Your task to perform on an android device: Go to CNN.com Image 0: 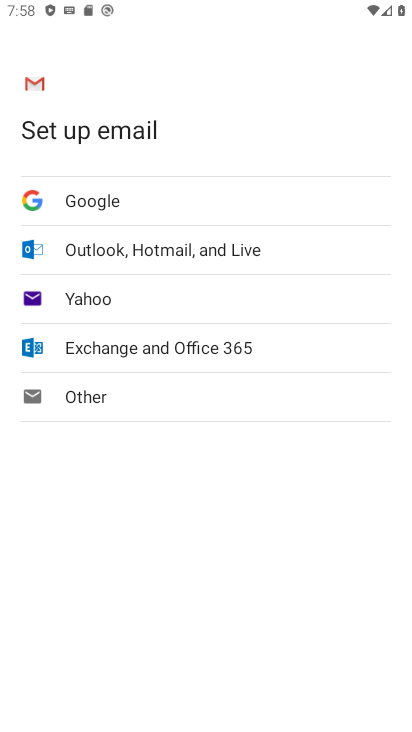
Step 0: press back button
Your task to perform on an android device: Go to CNN.com Image 1: 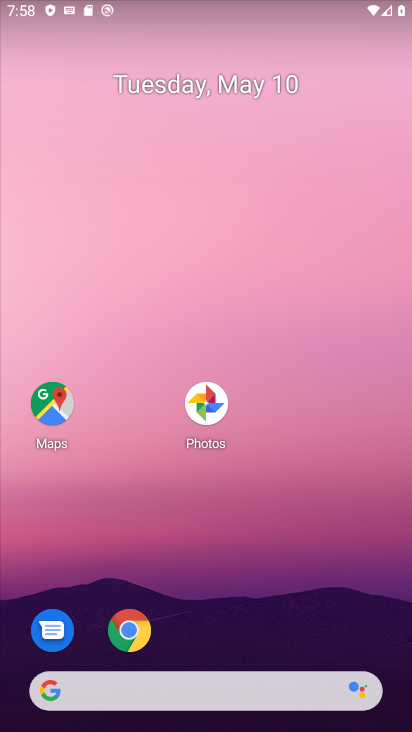
Step 1: click (132, 630)
Your task to perform on an android device: Go to CNN.com Image 2: 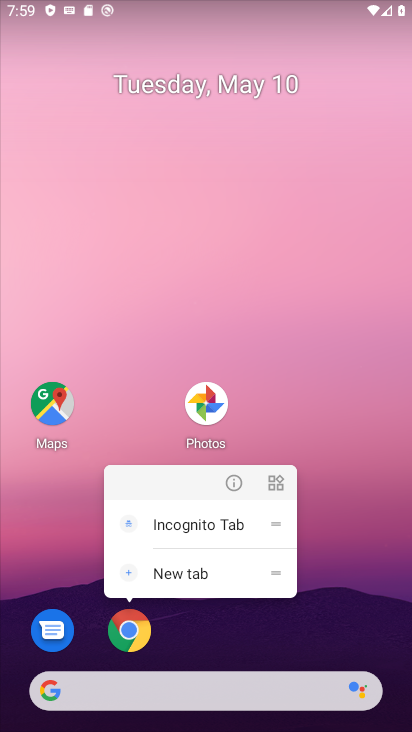
Step 2: click (128, 644)
Your task to perform on an android device: Go to CNN.com Image 3: 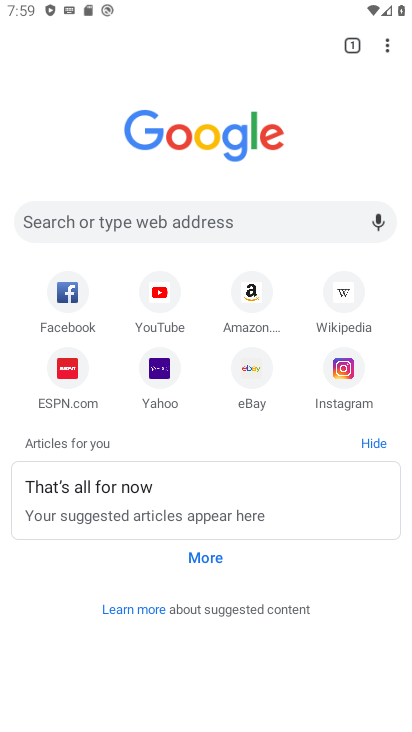
Step 3: click (121, 211)
Your task to perform on an android device: Go to CNN.com Image 4: 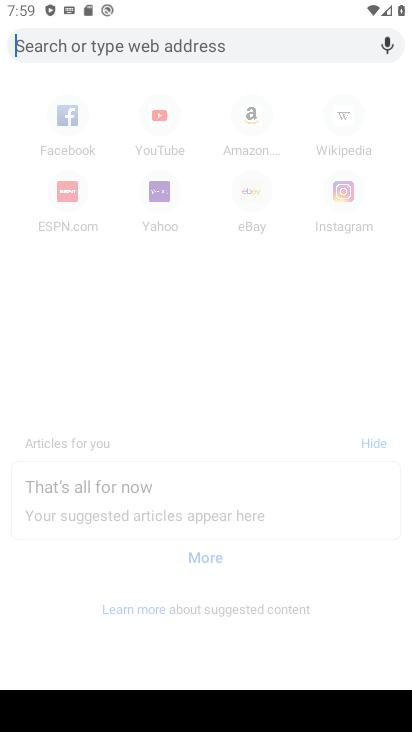
Step 4: type "cnn"
Your task to perform on an android device: Go to CNN.com Image 5: 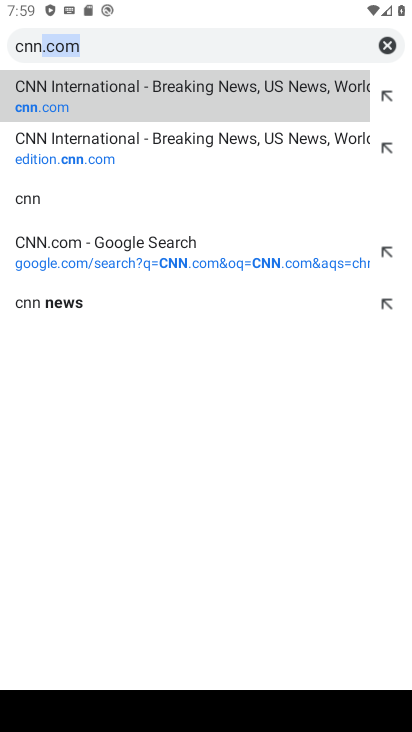
Step 5: click (44, 114)
Your task to perform on an android device: Go to CNN.com Image 6: 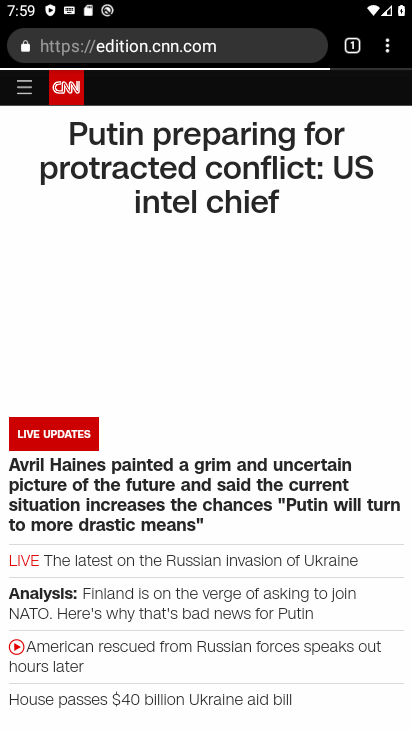
Step 6: task complete